Your task to perform on an android device: Go to Android settings Image 0: 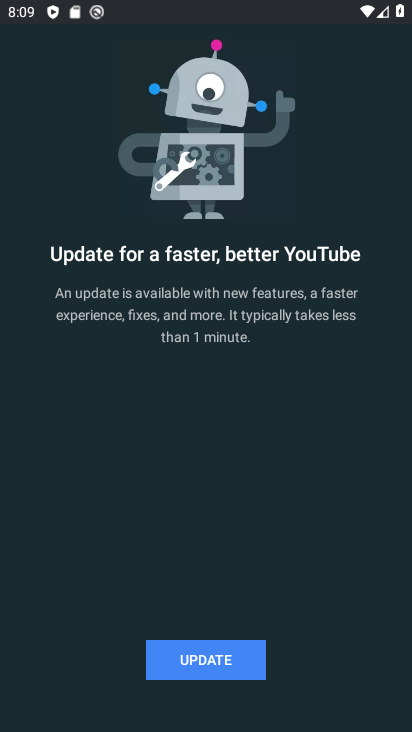
Step 0: press home button
Your task to perform on an android device: Go to Android settings Image 1: 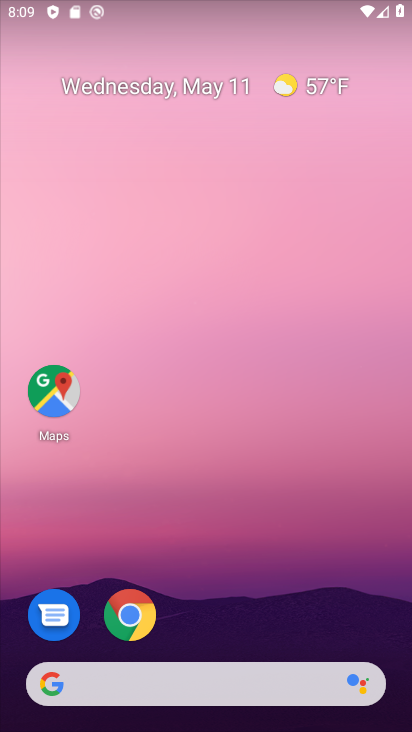
Step 1: drag from (248, 397) to (230, 195)
Your task to perform on an android device: Go to Android settings Image 2: 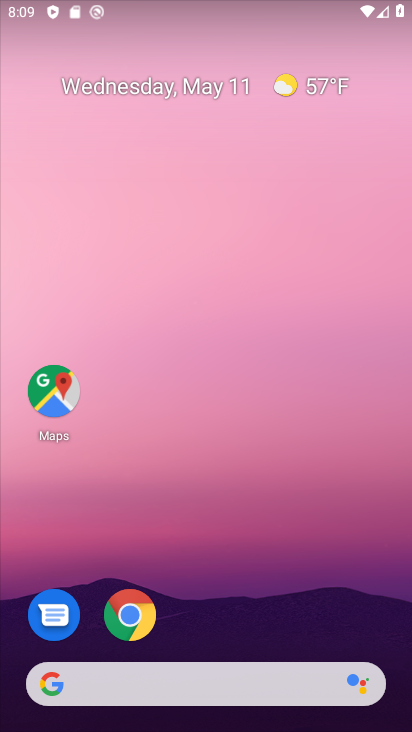
Step 2: drag from (223, 603) to (236, 156)
Your task to perform on an android device: Go to Android settings Image 3: 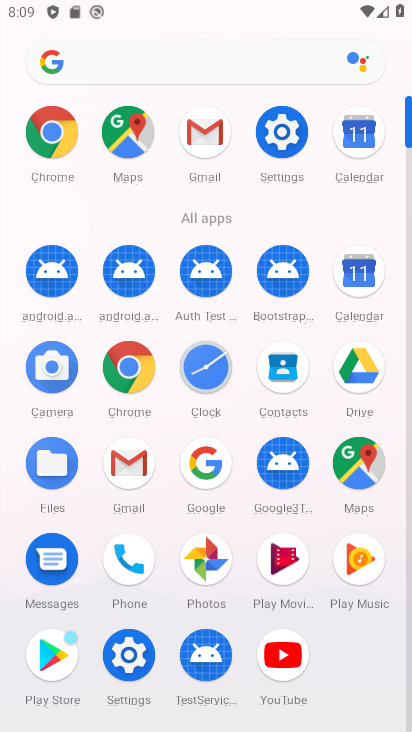
Step 3: click (285, 144)
Your task to perform on an android device: Go to Android settings Image 4: 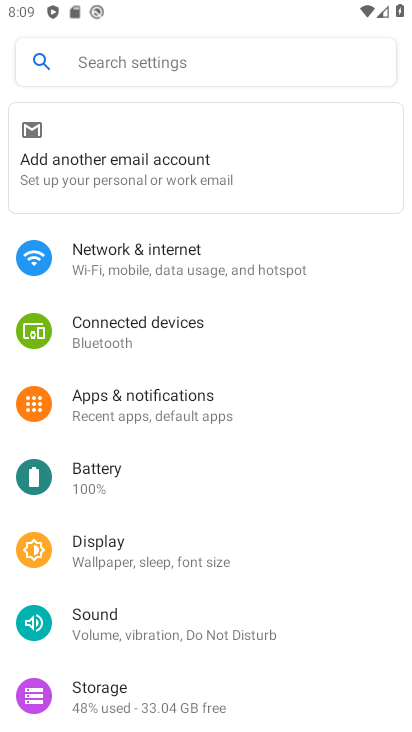
Step 4: drag from (279, 628) to (282, 173)
Your task to perform on an android device: Go to Android settings Image 5: 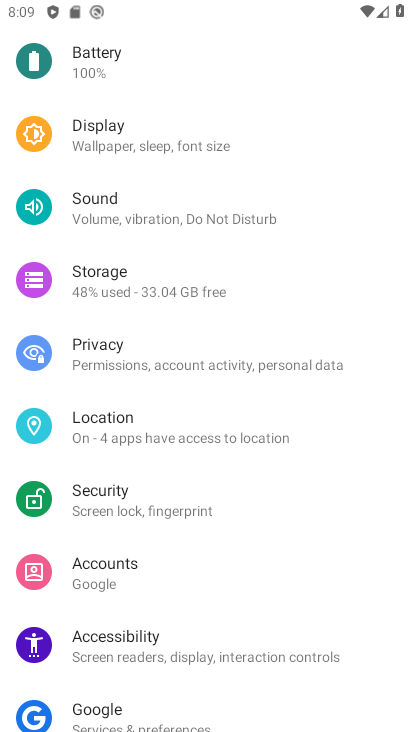
Step 5: drag from (168, 678) to (186, 120)
Your task to perform on an android device: Go to Android settings Image 6: 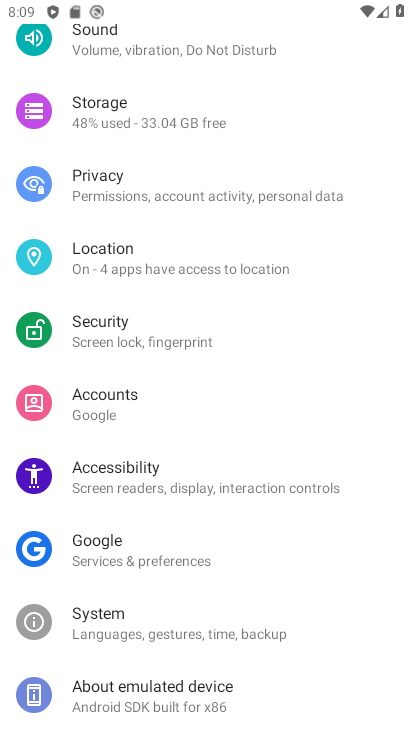
Step 6: click (198, 686)
Your task to perform on an android device: Go to Android settings Image 7: 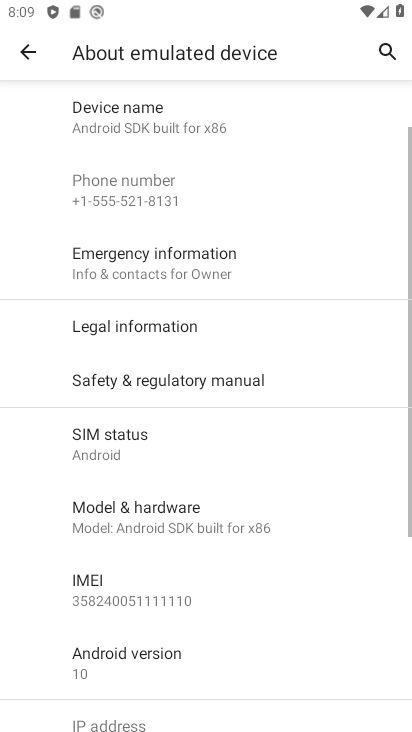
Step 7: drag from (173, 581) to (178, 405)
Your task to perform on an android device: Go to Android settings Image 8: 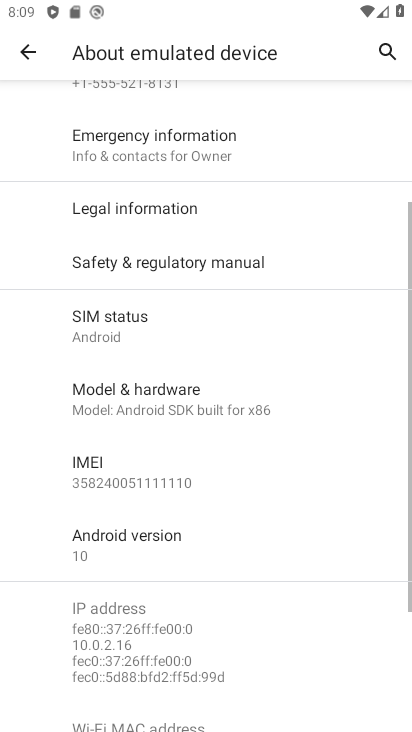
Step 8: click (174, 530)
Your task to perform on an android device: Go to Android settings Image 9: 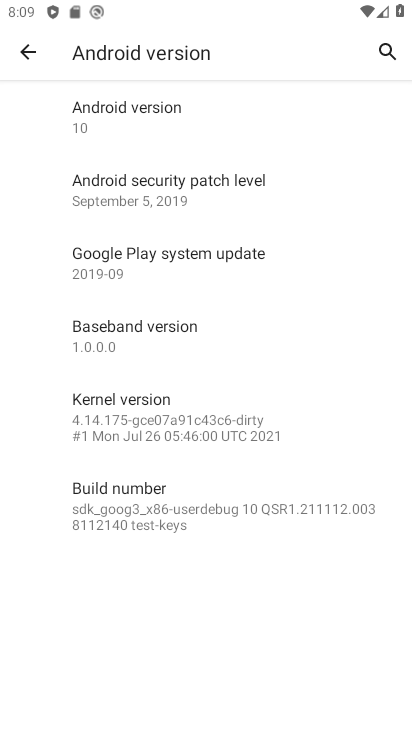
Step 9: task complete